Your task to perform on an android device: Add "sony triple a" to the cart on target.com Image 0: 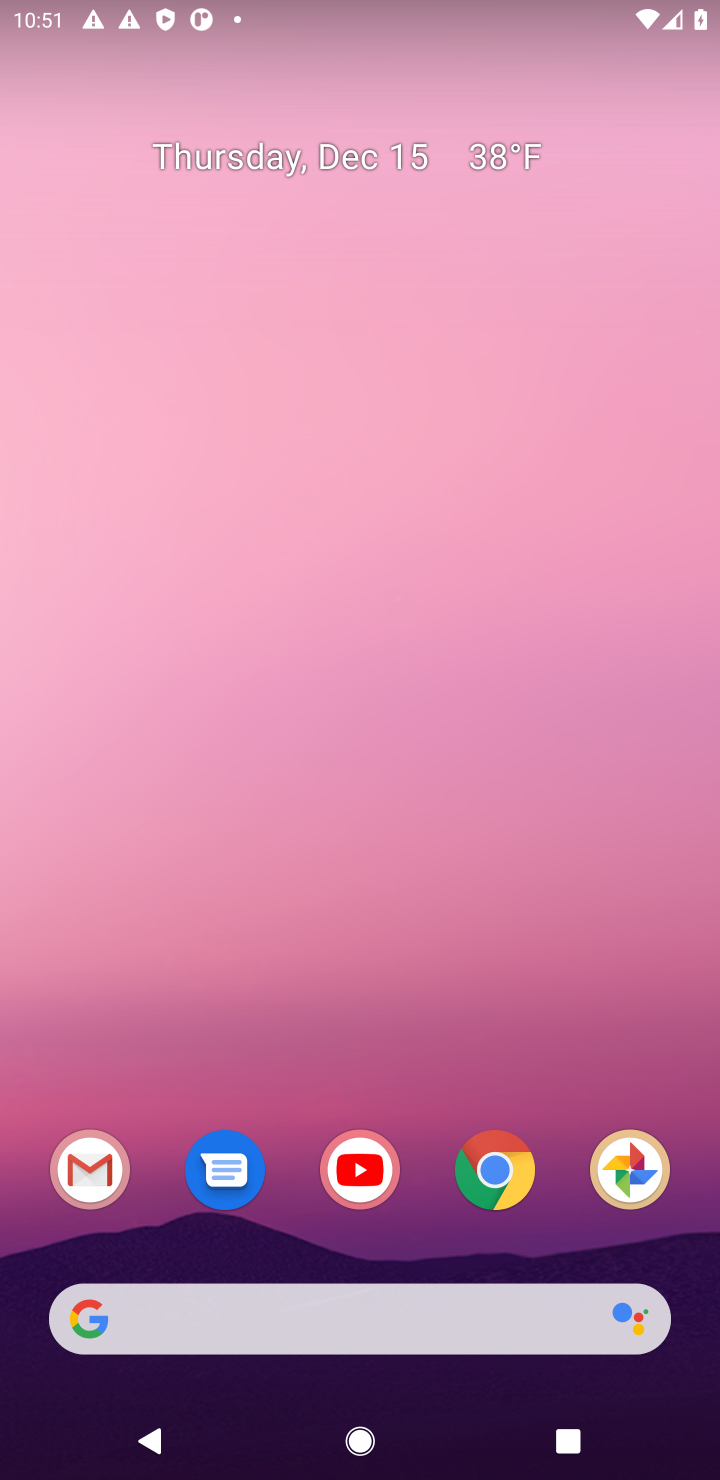
Step 0: click (494, 1172)
Your task to perform on an android device: Add "sony triple a" to the cart on target.com Image 1: 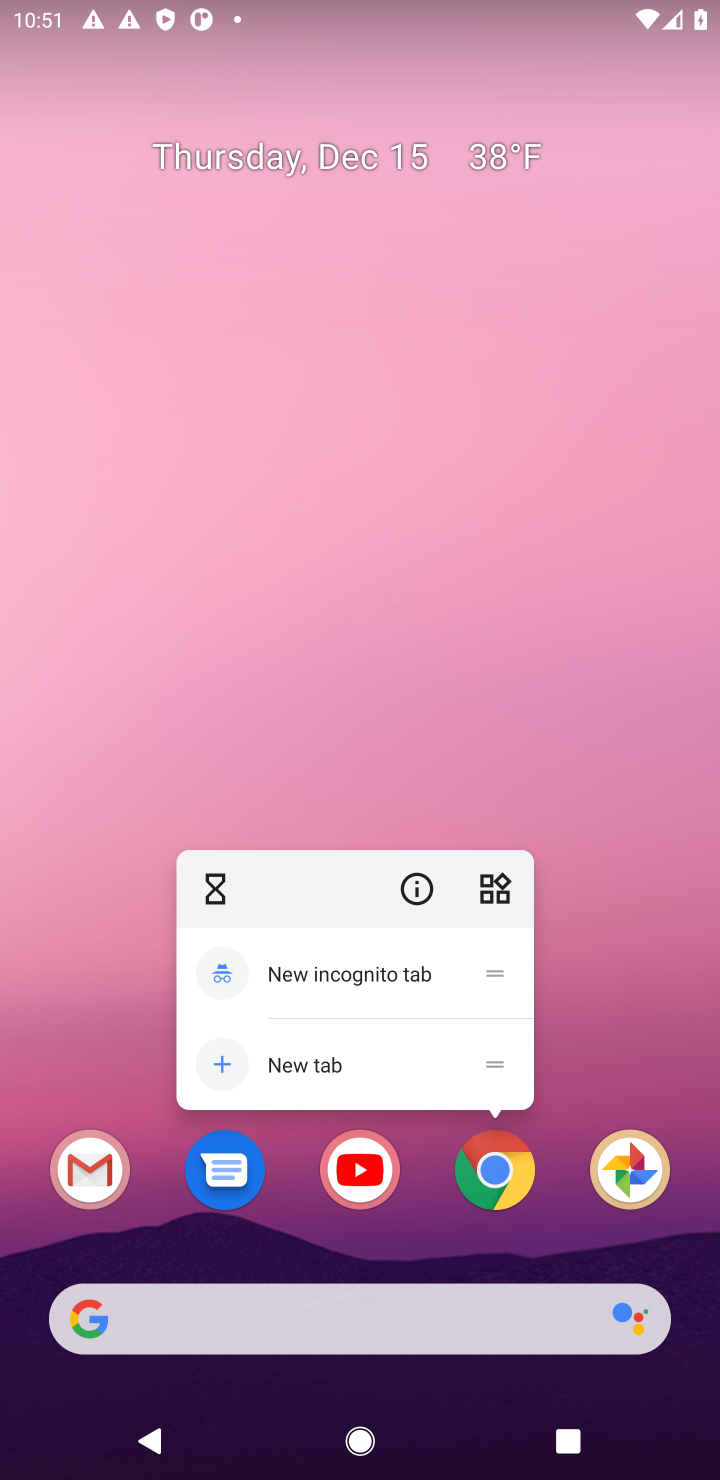
Step 1: click (494, 1172)
Your task to perform on an android device: Add "sony triple a" to the cart on target.com Image 2: 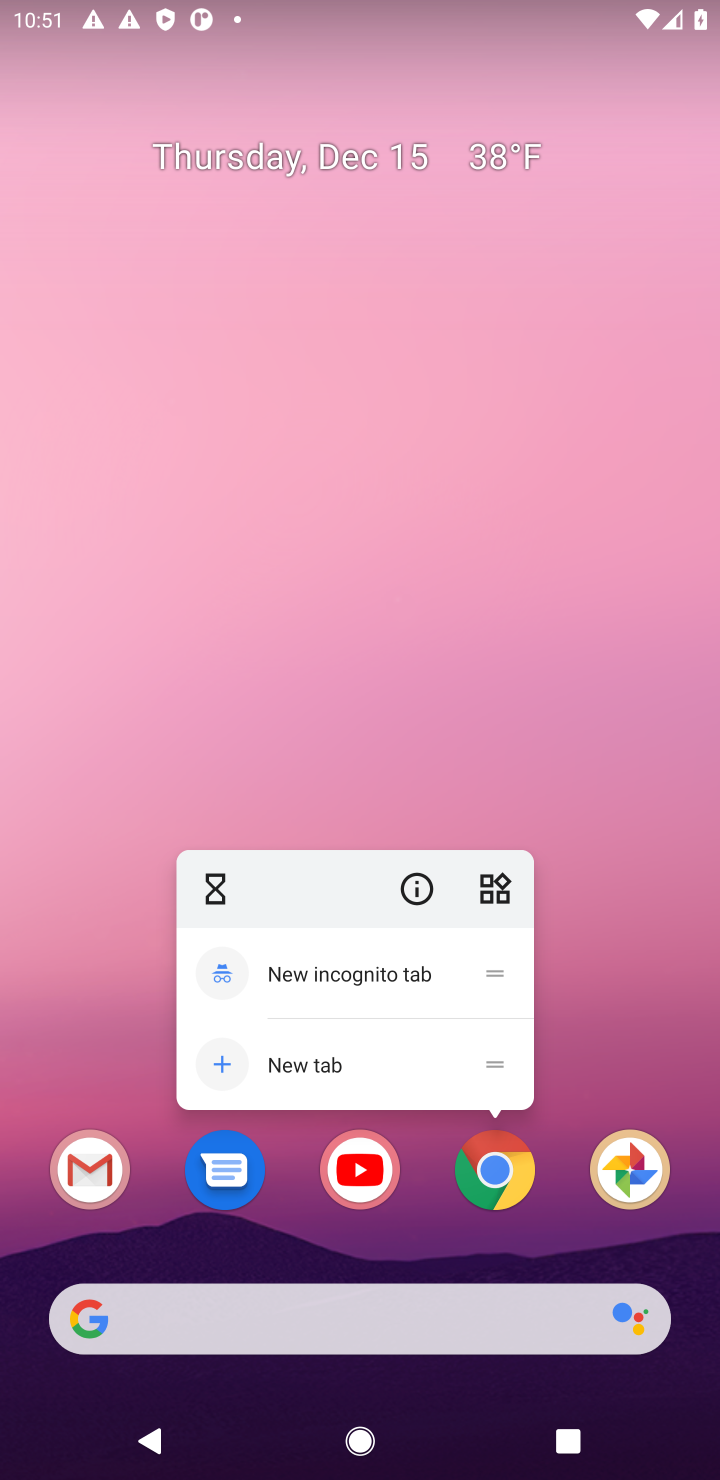
Step 2: click (494, 1172)
Your task to perform on an android device: Add "sony triple a" to the cart on target.com Image 3: 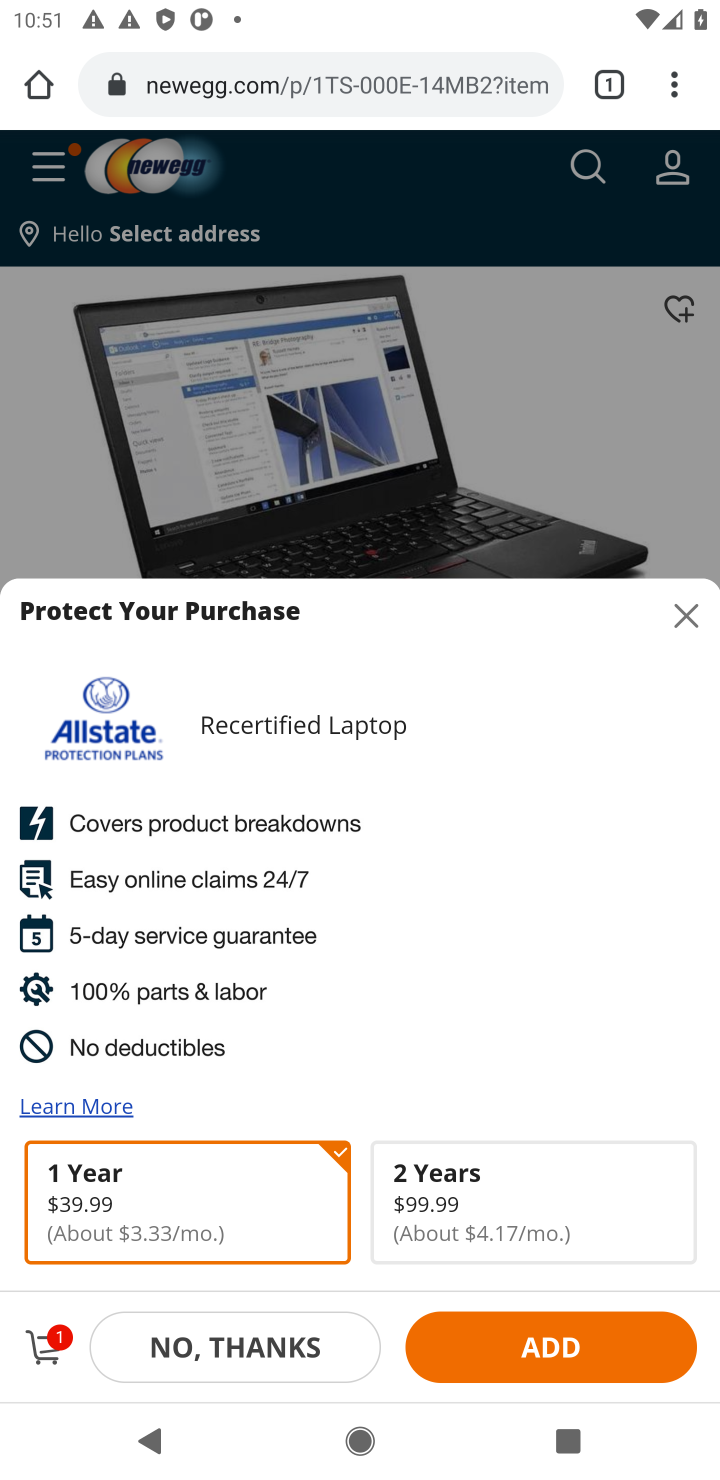
Step 3: click (286, 97)
Your task to perform on an android device: Add "sony triple a" to the cart on target.com Image 4: 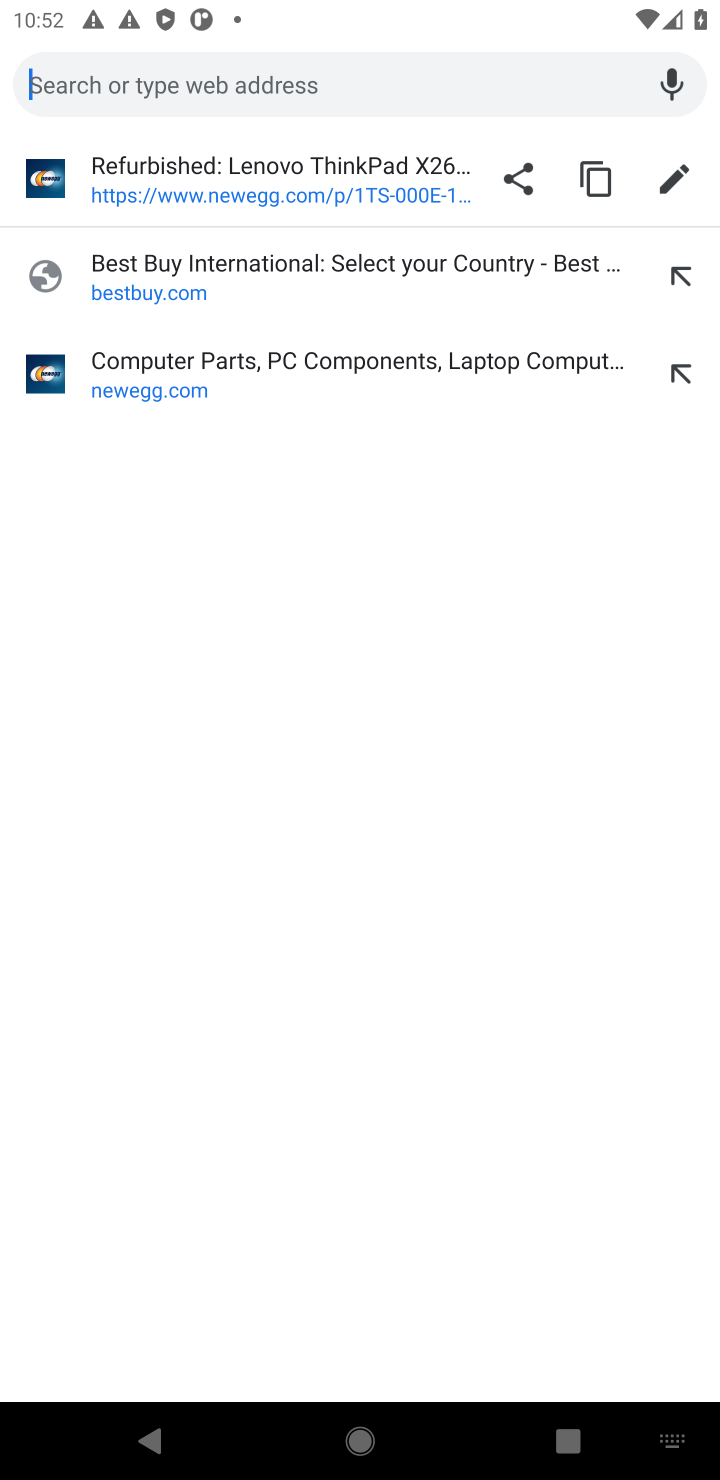
Step 4: type "target.com"
Your task to perform on an android device: Add "sony triple a" to the cart on target.com Image 5: 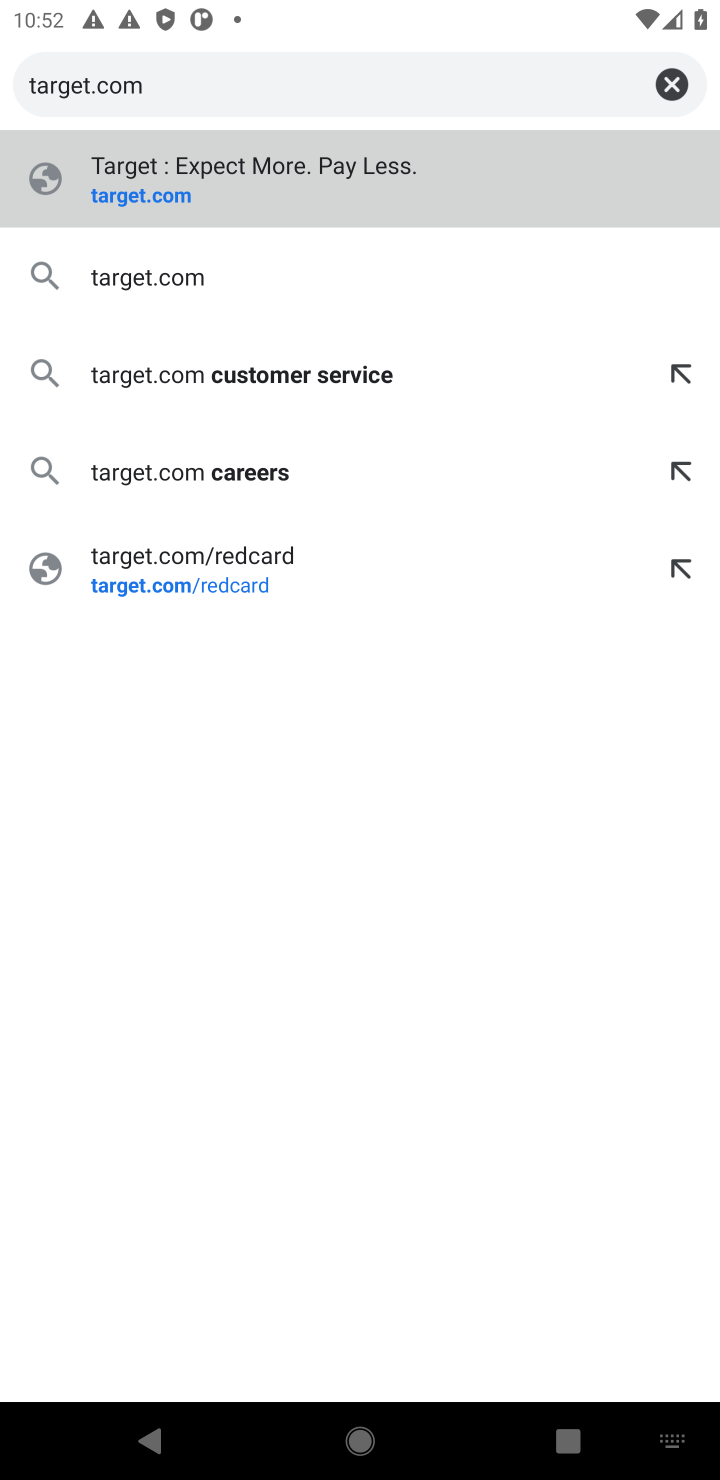
Step 5: click (139, 206)
Your task to perform on an android device: Add "sony triple a" to the cart on target.com Image 6: 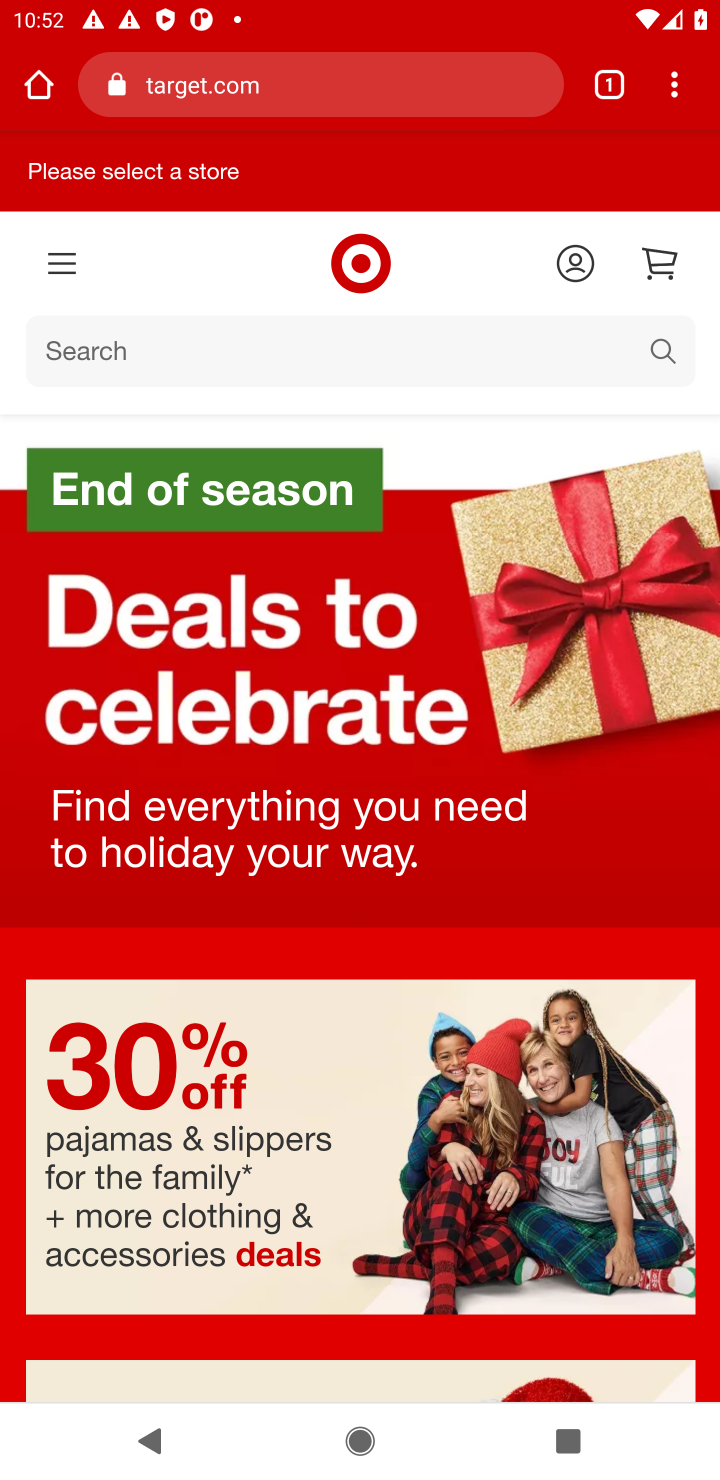
Step 6: click (73, 364)
Your task to perform on an android device: Add "sony triple a" to the cart on target.com Image 7: 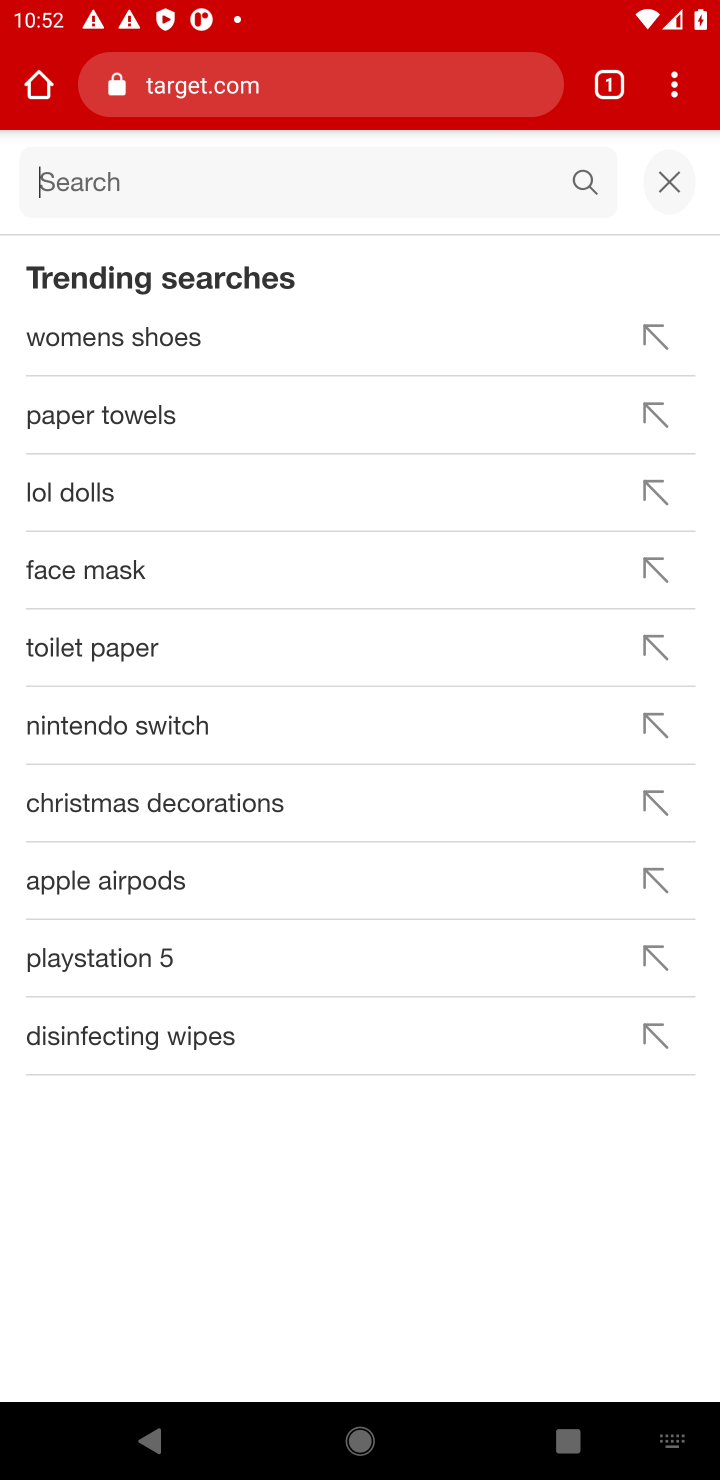
Step 7: type "sony triple a"
Your task to perform on an android device: Add "sony triple a" to the cart on target.com Image 8: 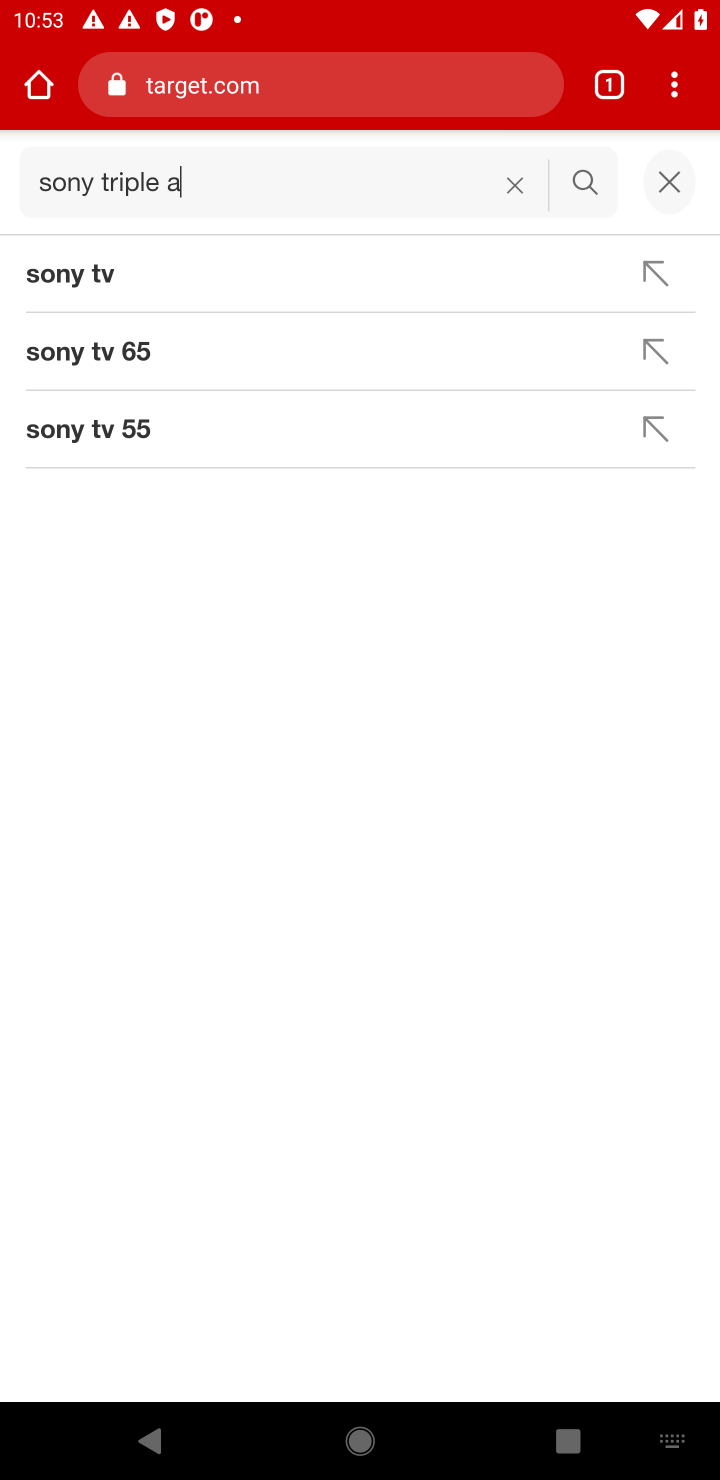
Step 8: click (586, 181)
Your task to perform on an android device: Add "sony triple a" to the cart on target.com Image 9: 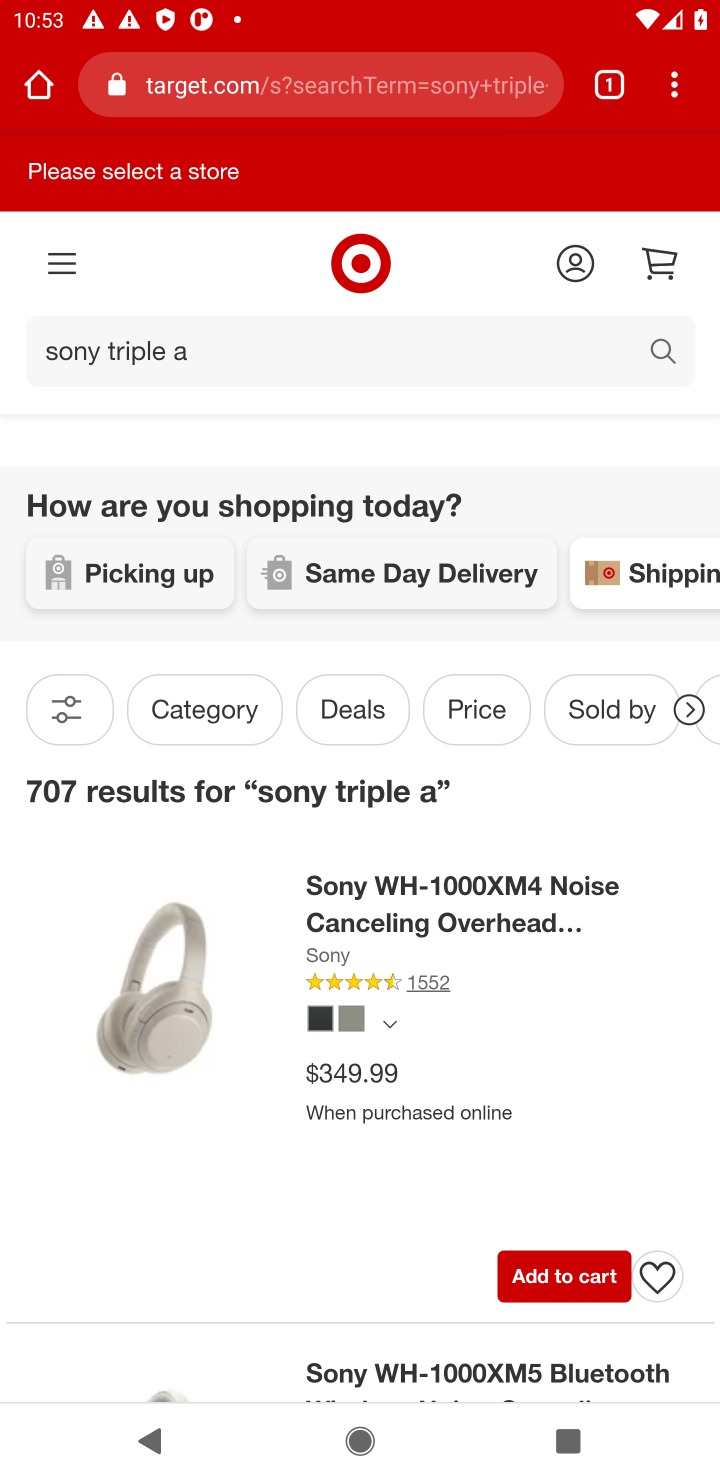
Step 9: task complete